Your task to perform on an android device: Go to Wikipedia Image 0: 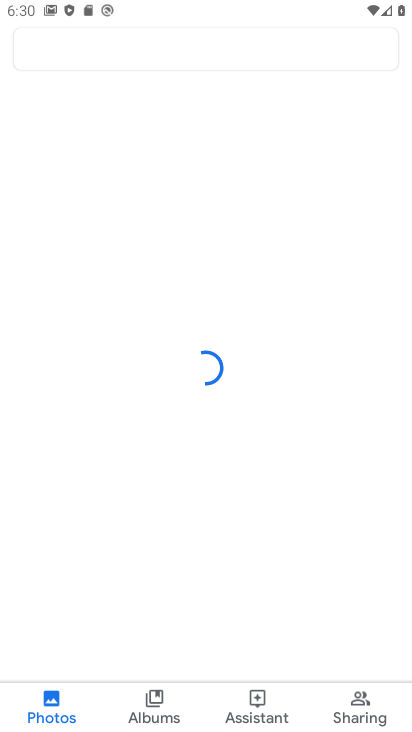
Step 0: press home button
Your task to perform on an android device: Go to Wikipedia Image 1: 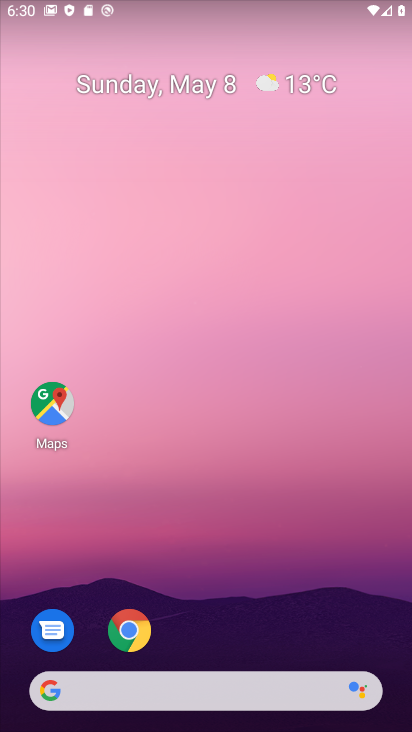
Step 1: click (132, 630)
Your task to perform on an android device: Go to Wikipedia Image 2: 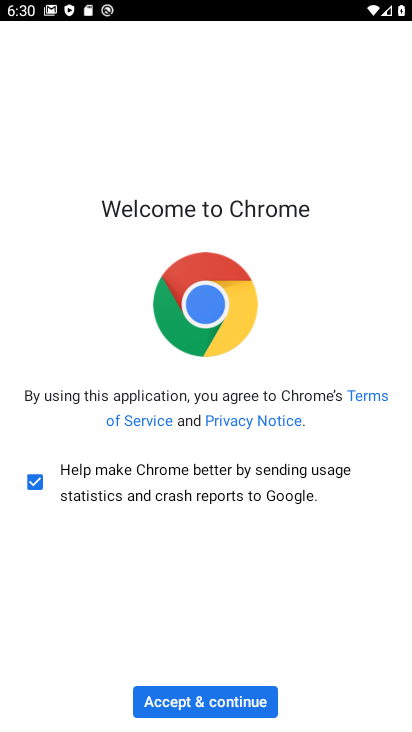
Step 2: click (182, 702)
Your task to perform on an android device: Go to Wikipedia Image 3: 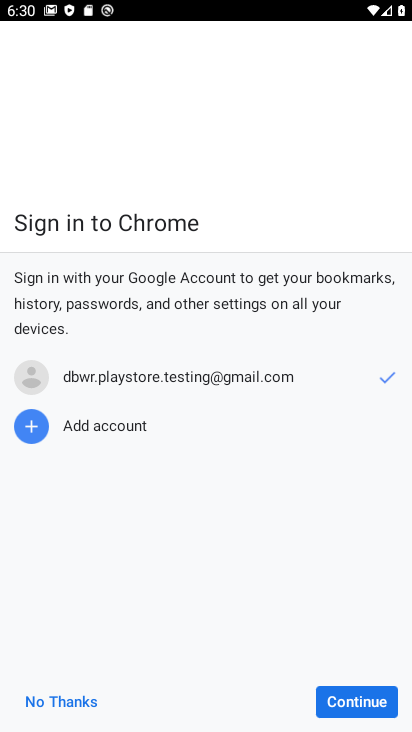
Step 3: click (348, 705)
Your task to perform on an android device: Go to Wikipedia Image 4: 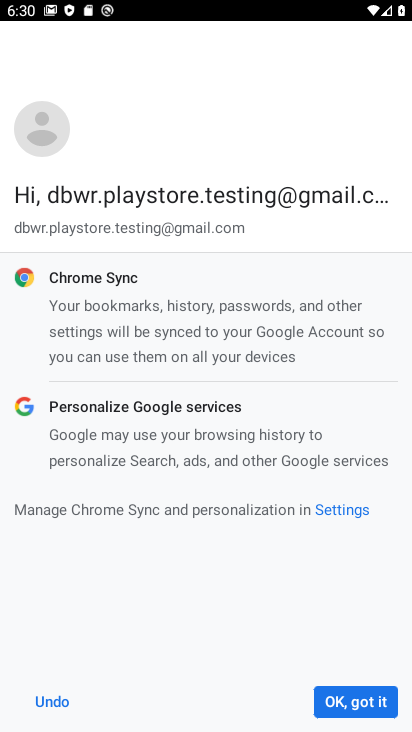
Step 4: click (348, 705)
Your task to perform on an android device: Go to Wikipedia Image 5: 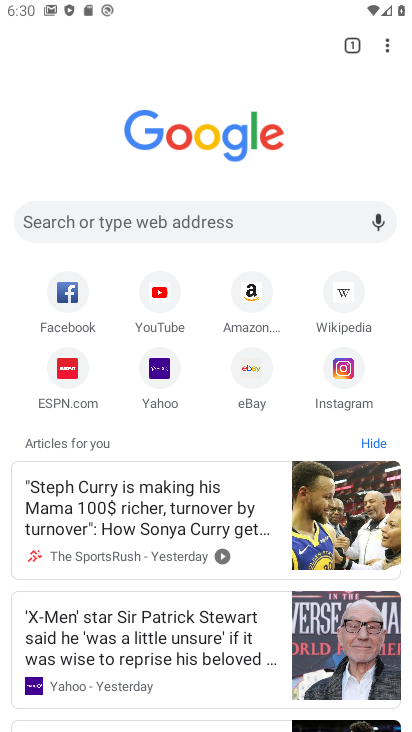
Step 5: click (341, 290)
Your task to perform on an android device: Go to Wikipedia Image 6: 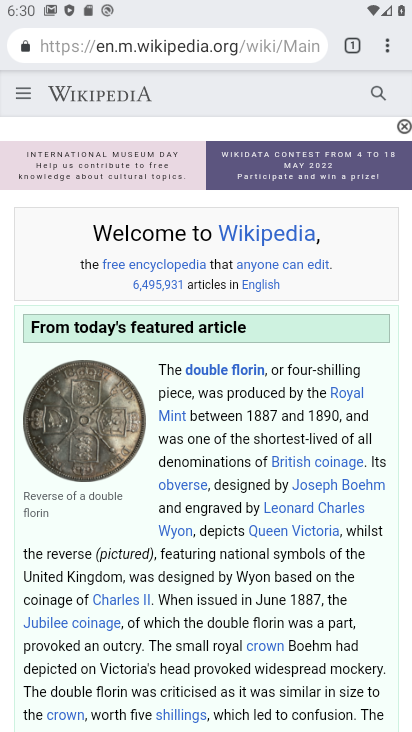
Step 6: task complete